Your task to perform on an android device: Check the weather Image 0: 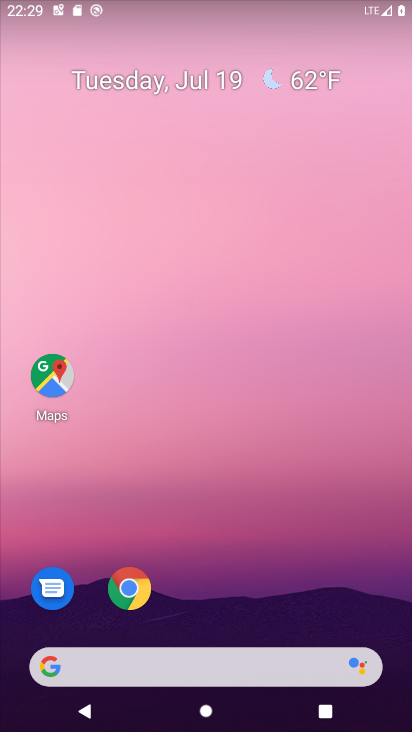
Step 0: click (162, 671)
Your task to perform on an android device: Check the weather Image 1: 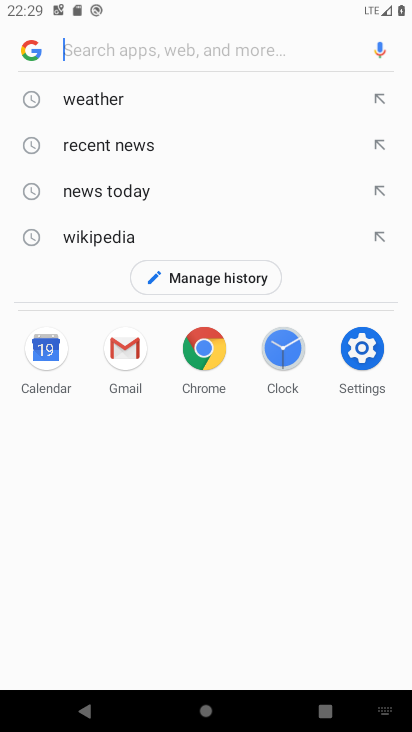
Step 1: click (100, 103)
Your task to perform on an android device: Check the weather Image 2: 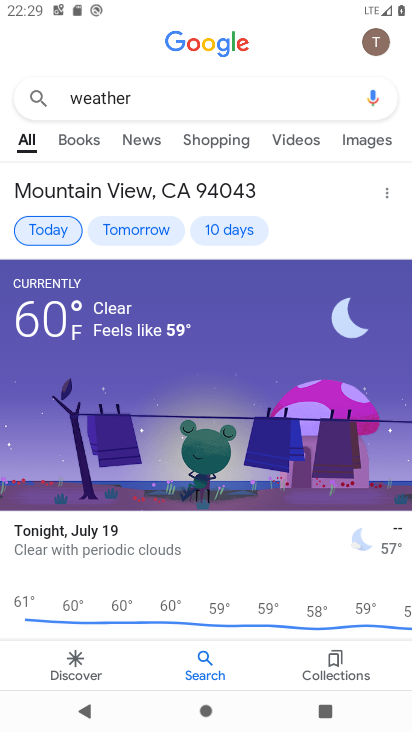
Step 2: task complete